Your task to perform on an android device: turn off notifications settings in the gmail app Image 0: 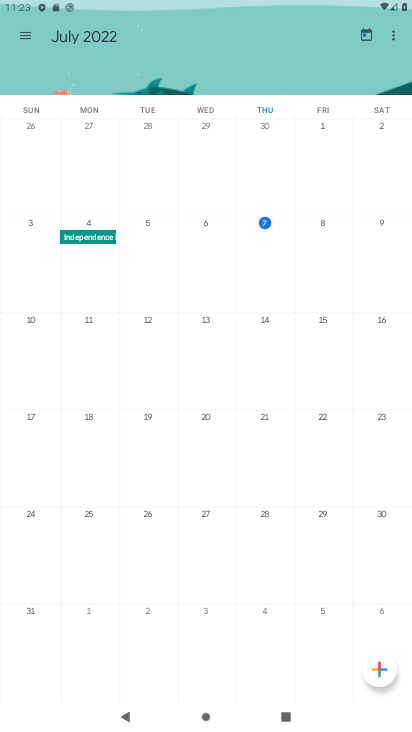
Step 0: press home button
Your task to perform on an android device: turn off notifications settings in the gmail app Image 1: 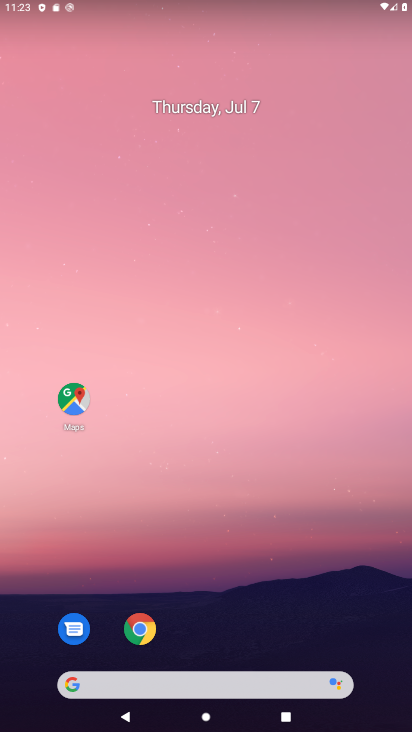
Step 1: drag from (391, 646) to (355, 159)
Your task to perform on an android device: turn off notifications settings in the gmail app Image 2: 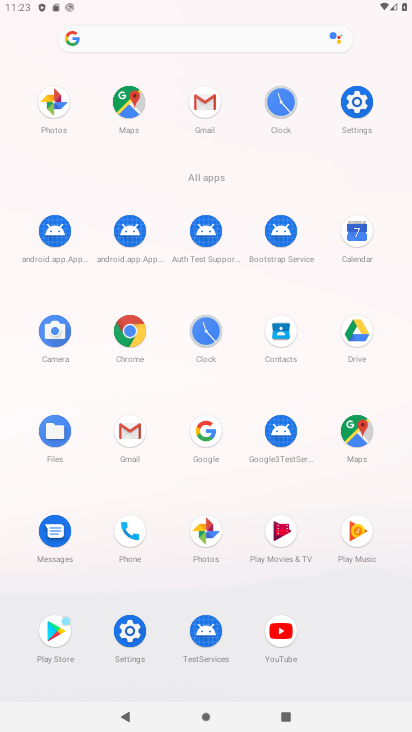
Step 2: click (129, 431)
Your task to perform on an android device: turn off notifications settings in the gmail app Image 3: 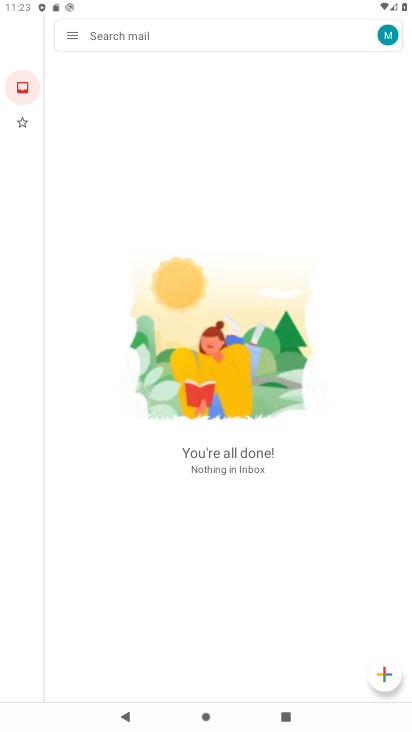
Step 3: click (70, 34)
Your task to perform on an android device: turn off notifications settings in the gmail app Image 4: 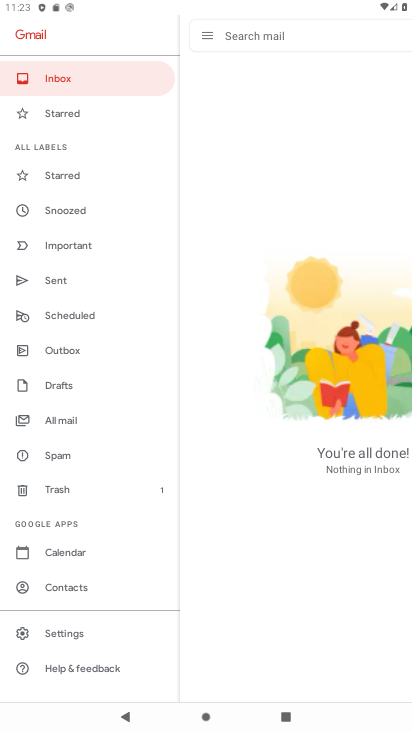
Step 4: click (63, 628)
Your task to perform on an android device: turn off notifications settings in the gmail app Image 5: 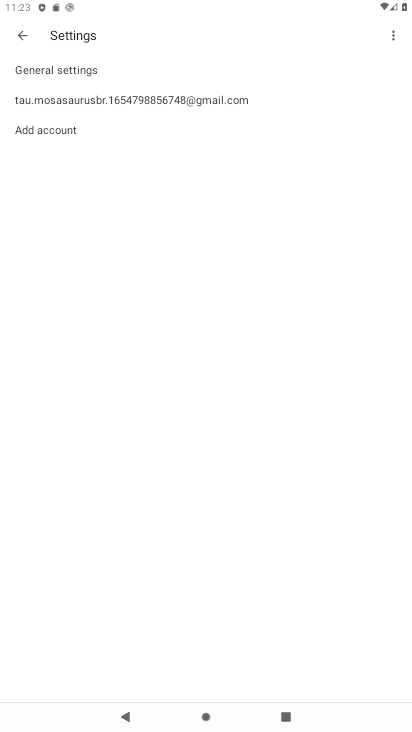
Step 5: click (83, 104)
Your task to perform on an android device: turn off notifications settings in the gmail app Image 6: 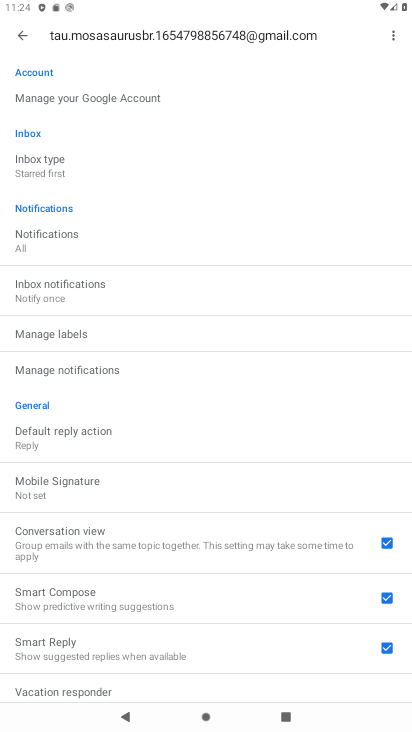
Step 6: click (69, 374)
Your task to perform on an android device: turn off notifications settings in the gmail app Image 7: 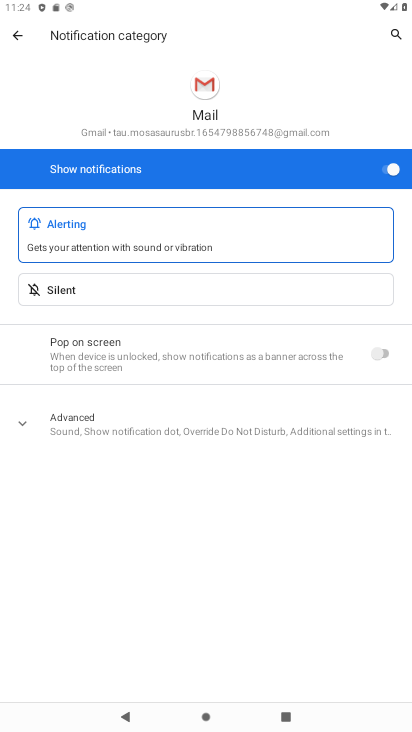
Step 7: click (381, 170)
Your task to perform on an android device: turn off notifications settings in the gmail app Image 8: 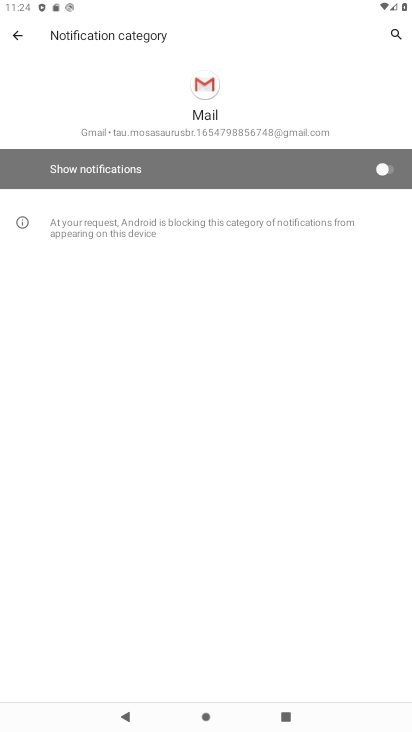
Step 8: task complete